Your task to perform on an android device: Do I have any events this weekend? Image 0: 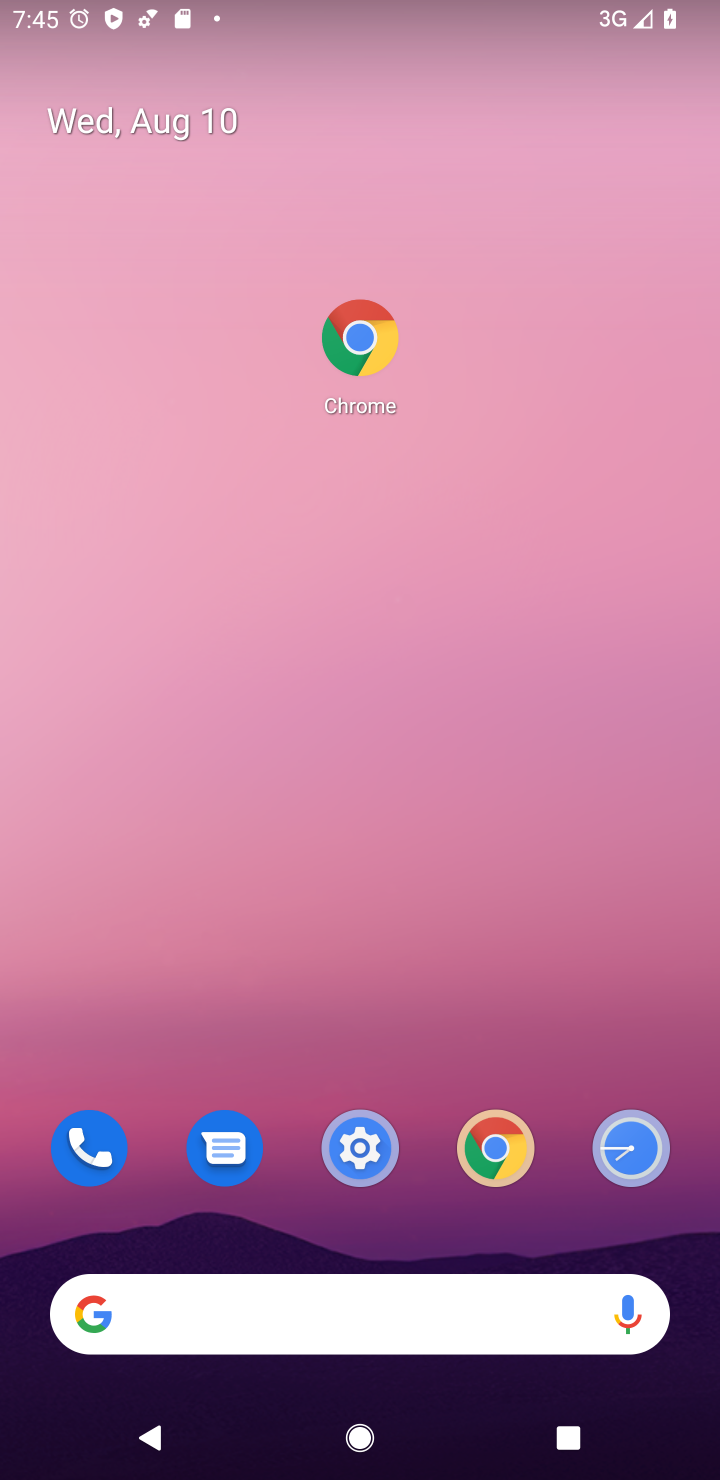
Step 0: click (179, 125)
Your task to perform on an android device: Do I have any events this weekend? Image 1: 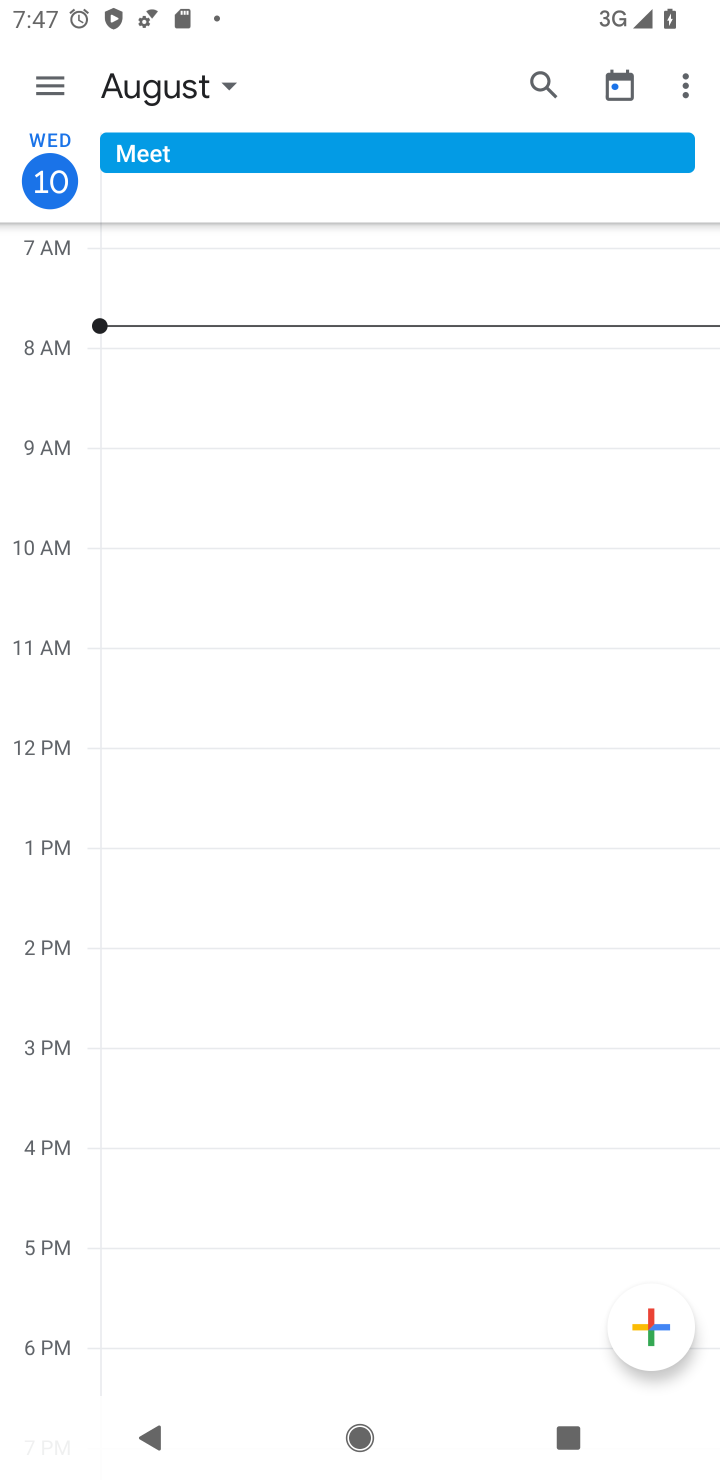
Step 1: click (57, 80)
Your task to perform on an android device: Do I have any events this weekend? Image 2: 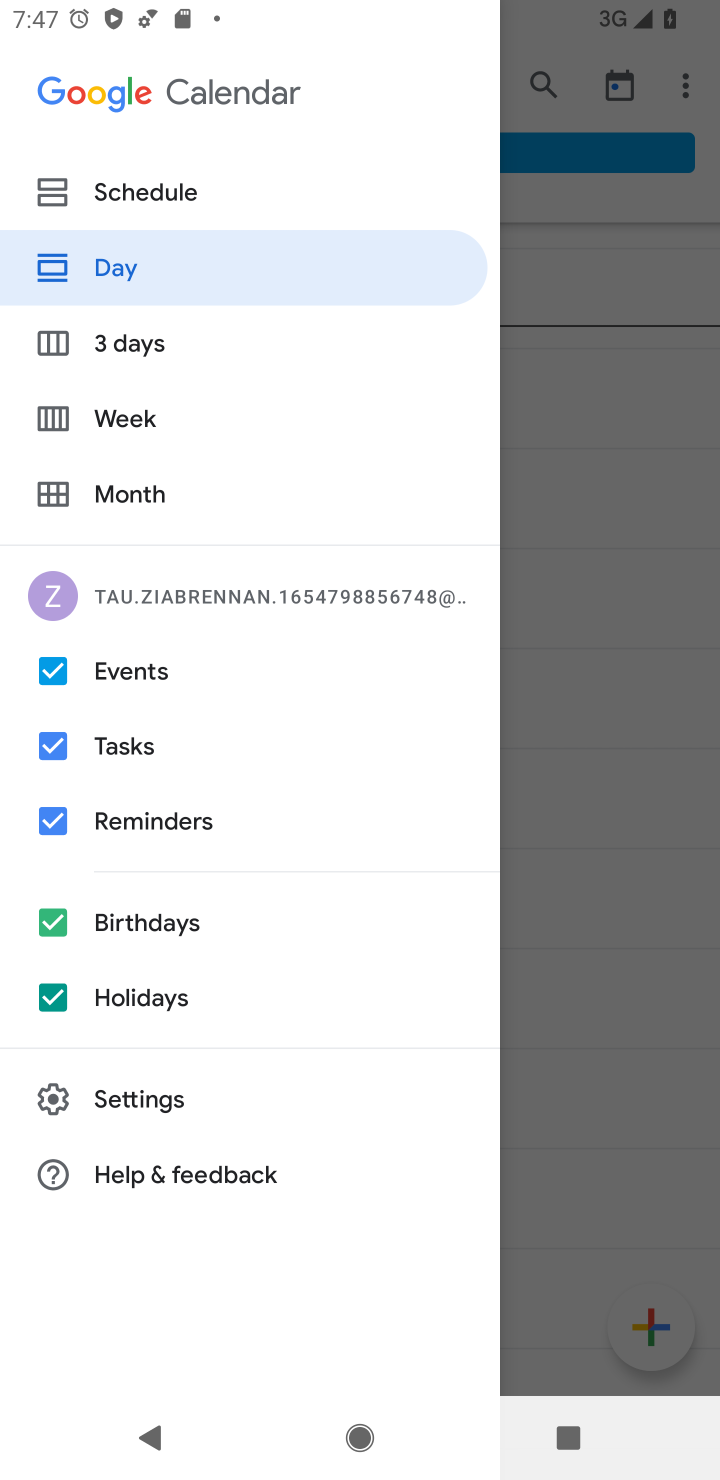
Step 2: click (99, 195)
Your task to perform on an android device: Do I have any events this weekend? Image 3: 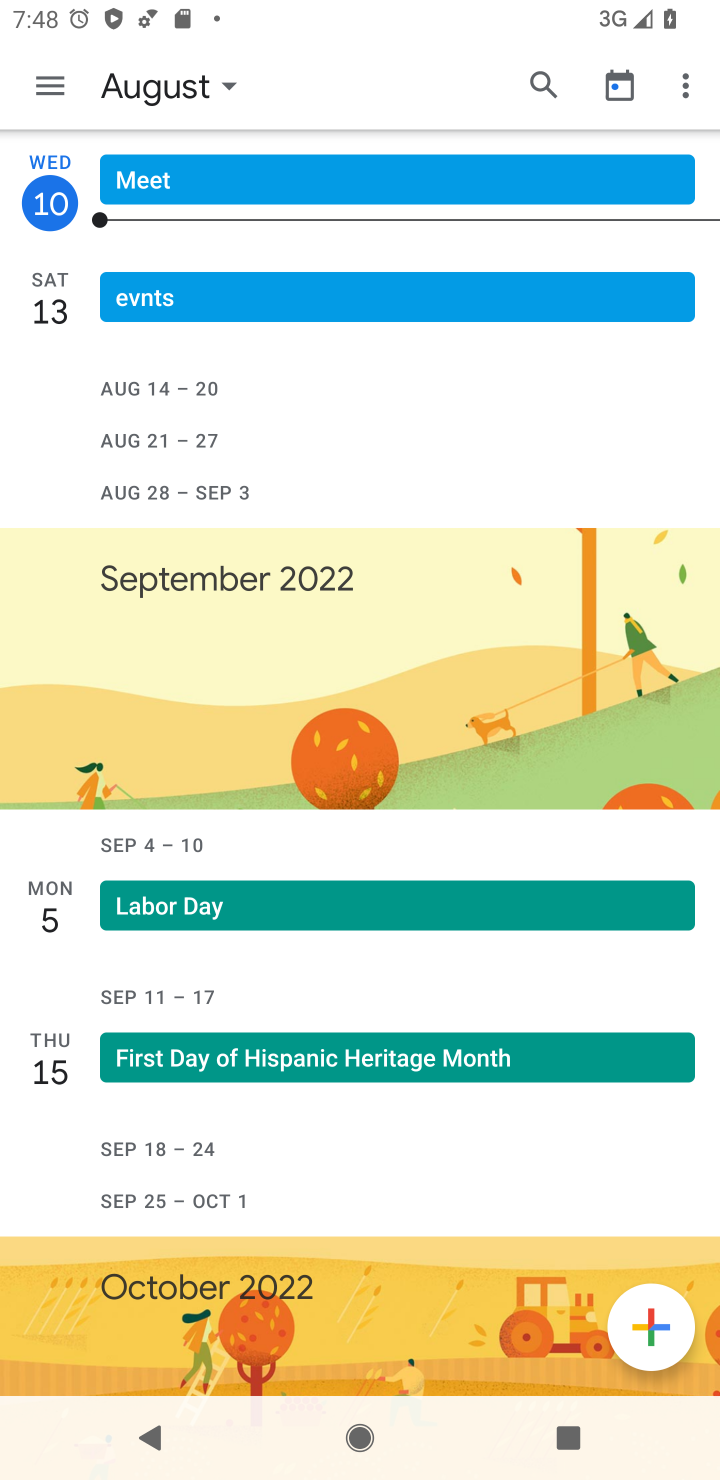
Step 3: task complete